Your task to perform on an android device: Add amazon basics triple a to the cart on ebay.com, then select checkout. Image 0: 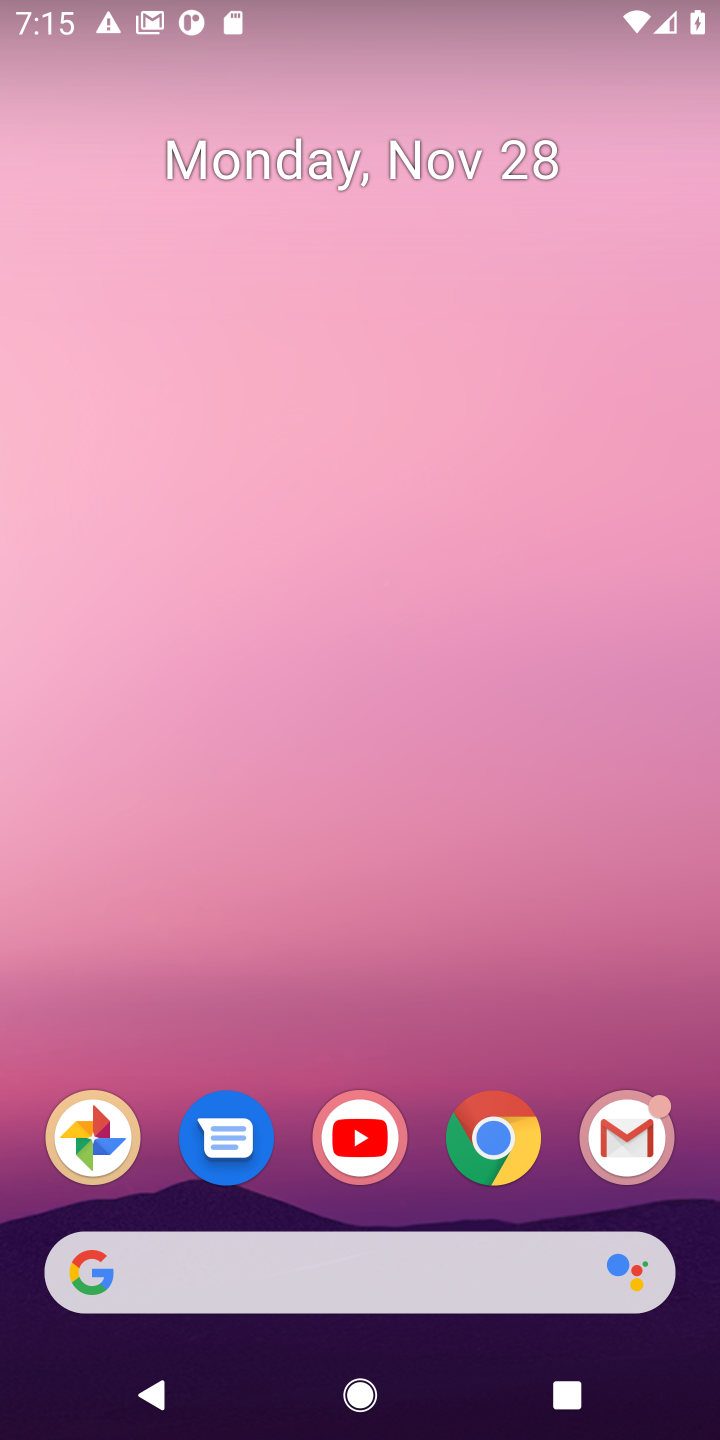
Step 0: click (490, 1141)
Your task to perform on an android device: Add amazon basics triple a to the cart on ebay.com, then select checkout. Image 1: 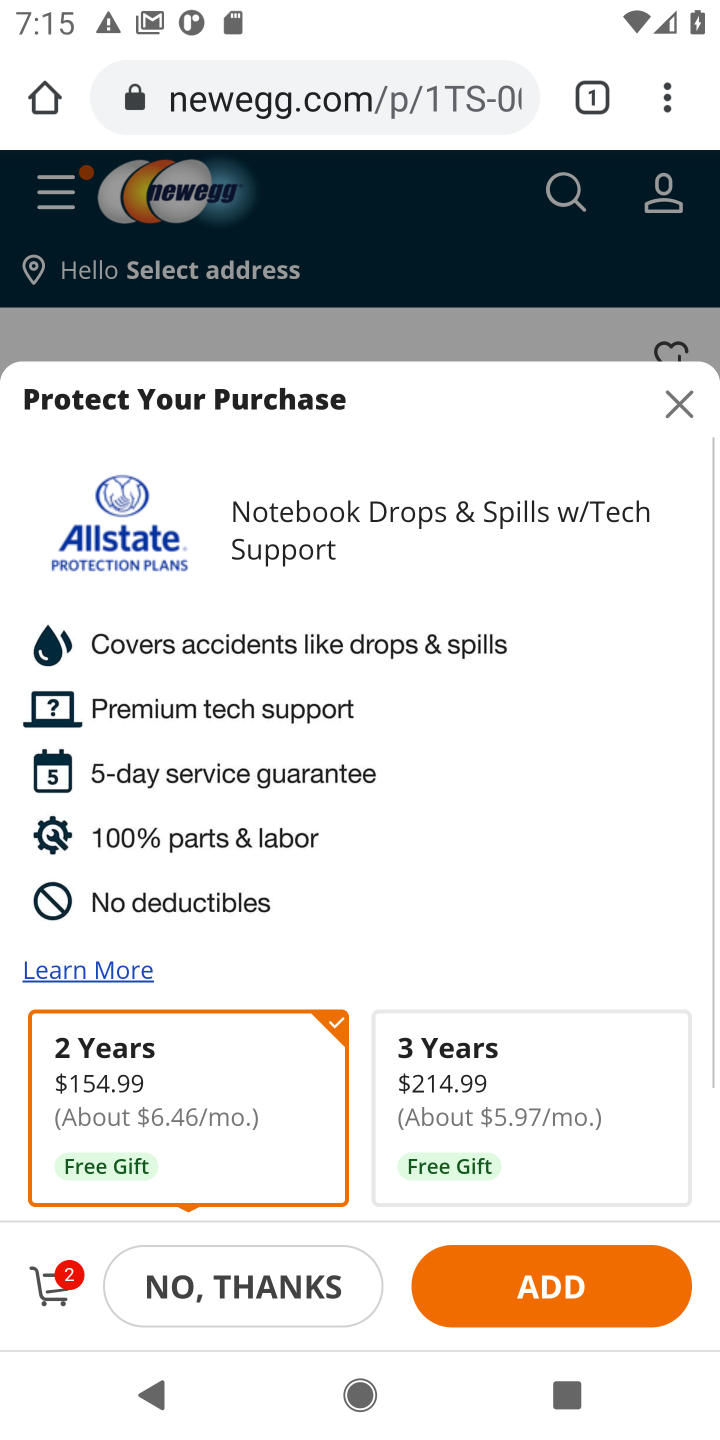
Step 1: click (318, 110)
Your task to perform on an android device: Add amazon basics triple a to the cart on ebay.com, then select checkout. Image 2: 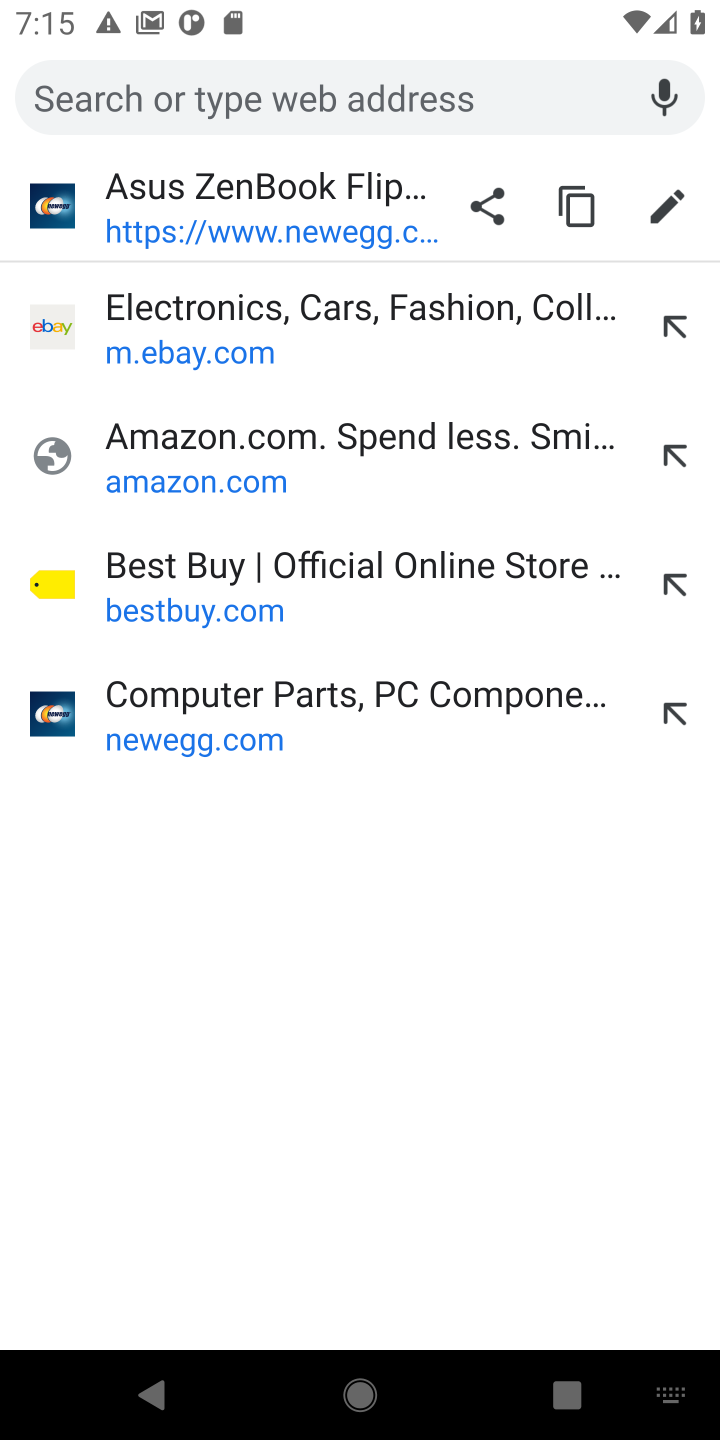
Step 2: click (198, 360)
Your task to perform on an android device: Add amazon basics triple a to the cart on ebay.com, then select checkout. Image 3: 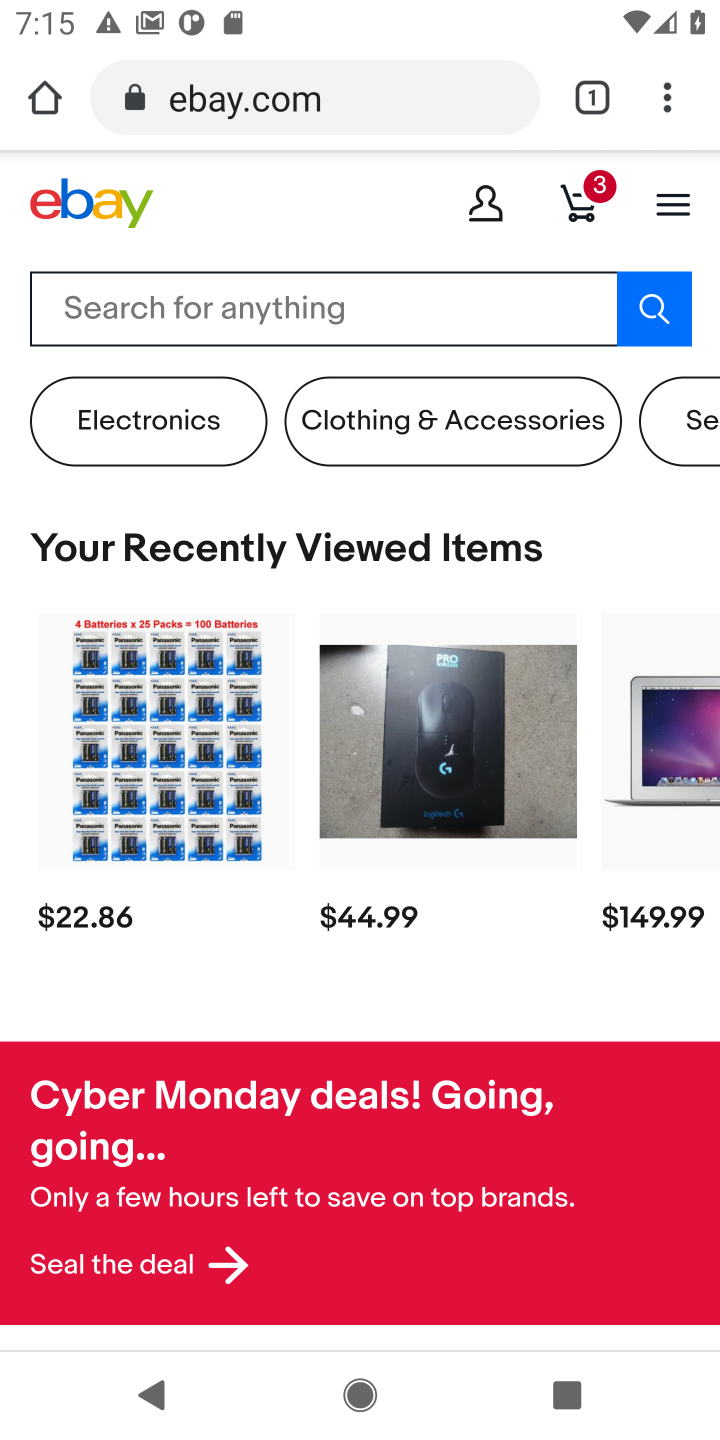
Step 3: click (117, 309)
Your task to perform on an android device: Add amazon basics triple a to the cart on ebay.com, then select checkout. Image 4: 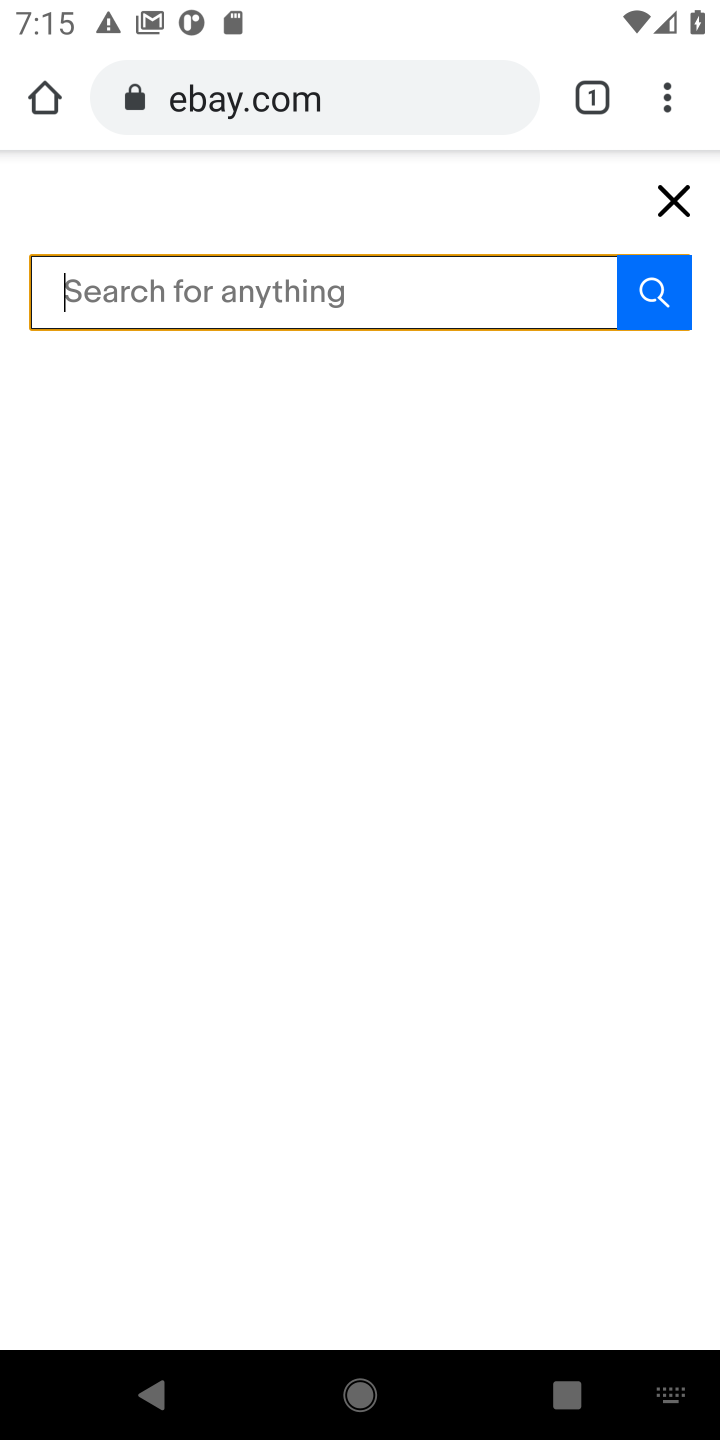
Step 4: type "amazon basics triple a"
Your task to perform on an android device: Add amazon basics triple a to the cart on ebay.com, then select checkout. Image 5: 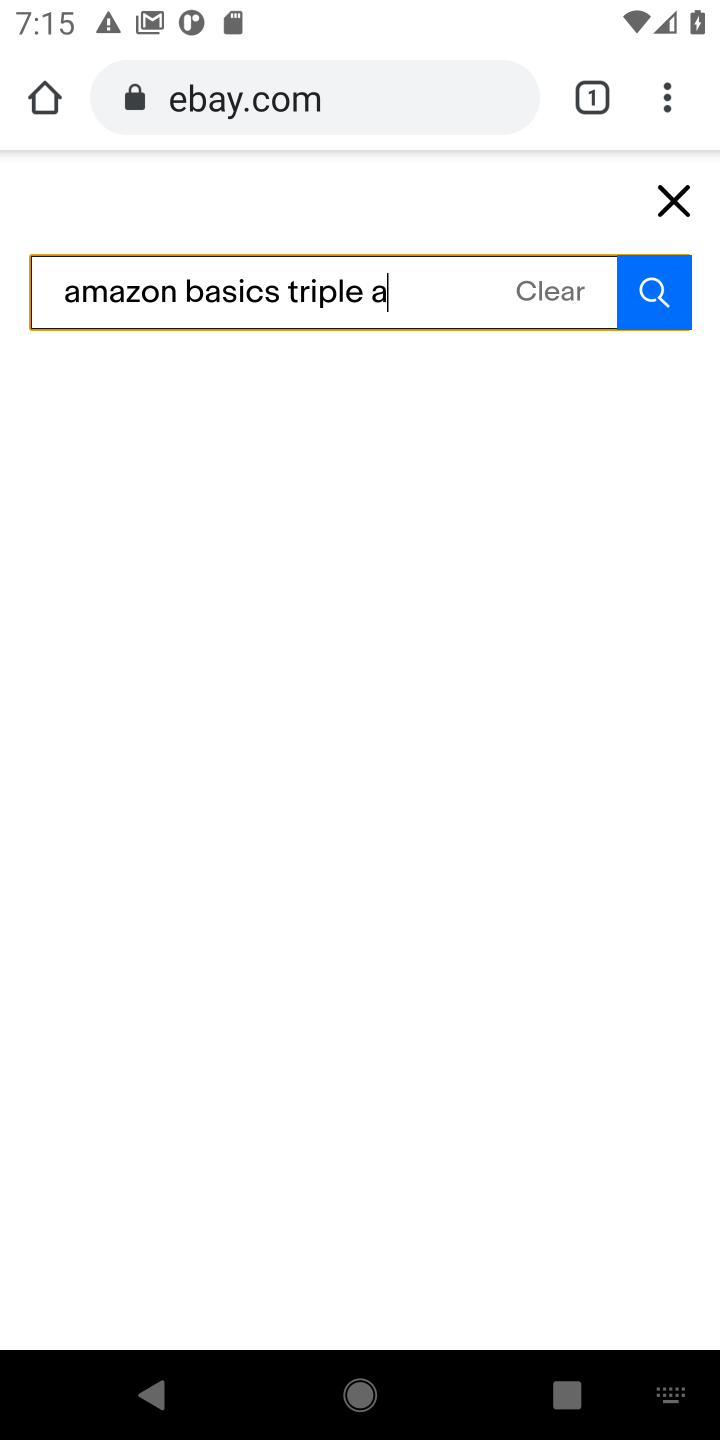
Step 5: click (660, 287)
Your task to perform on an android device: Add amazon basics triple a to the cart on ebay.com, then select checkout. Image 6: 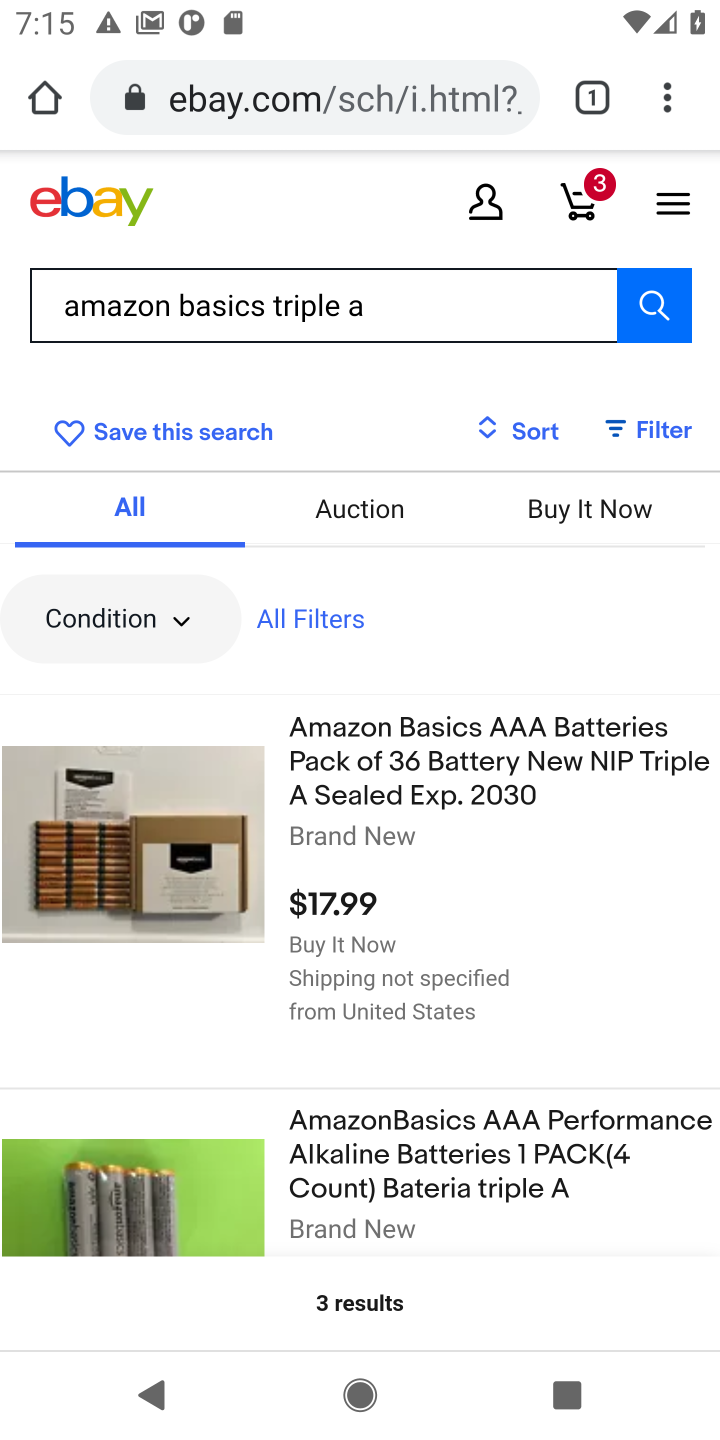
Step 6: click (318, 781)
Your task to perform on an android device: Add amazon basics triple a to the cart on ebay.com, then select checkout. Image 7: 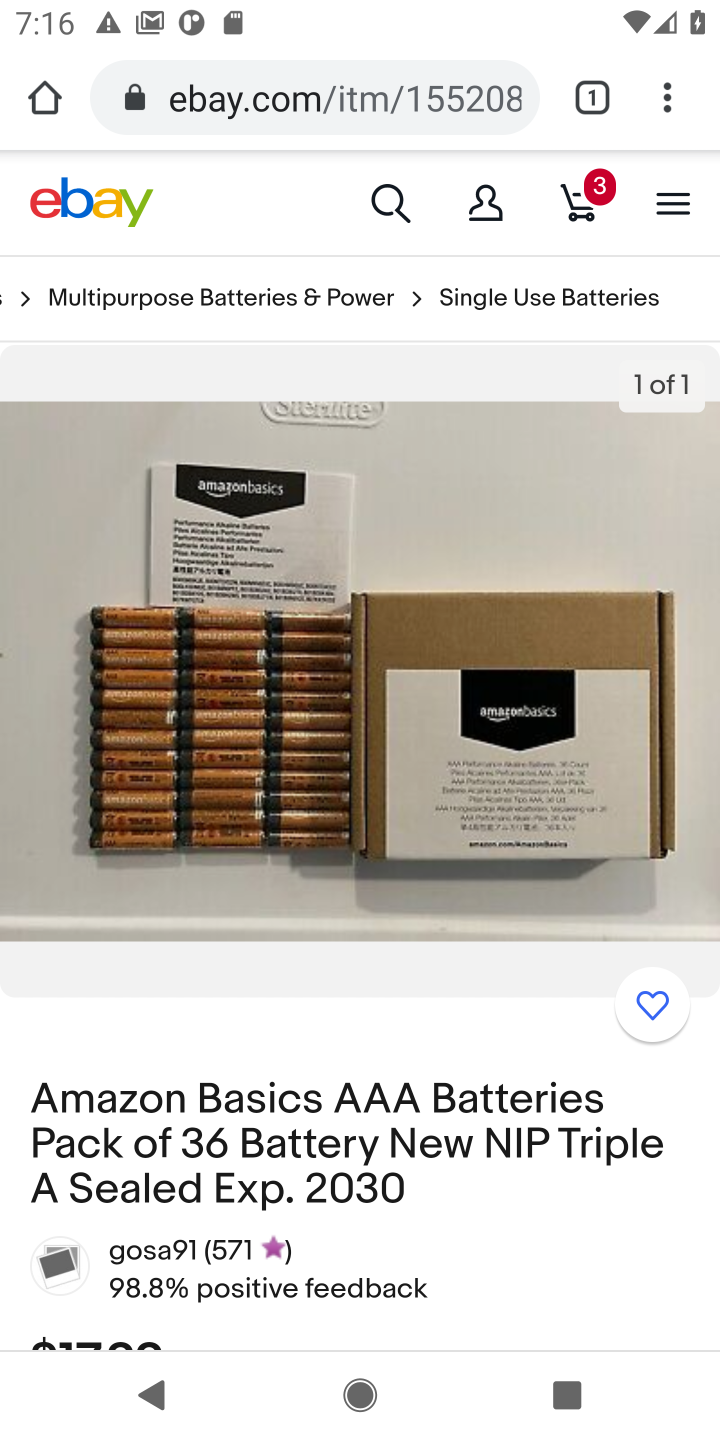
Step 7: drag from (318, 1050) to (307, 593)
Your task to perform on an android device: Add amazon basics triple a to the cart on ebay.com, then select checkout. Image 8: 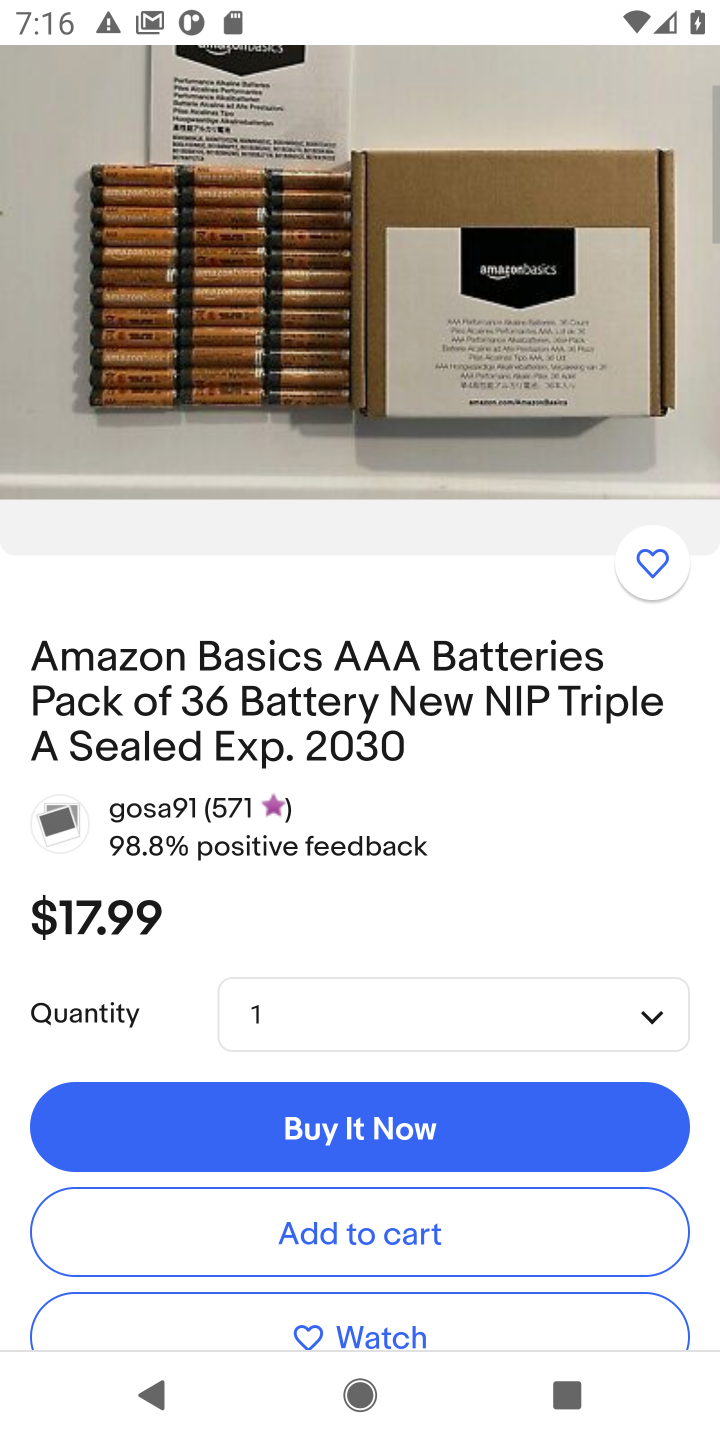
Step 8: drag from (387, 1024) to (387, 623)
Your task to perform on an android device: Add amazon basics triple a to the cart on ebay.com, then select checkout. Image 9: 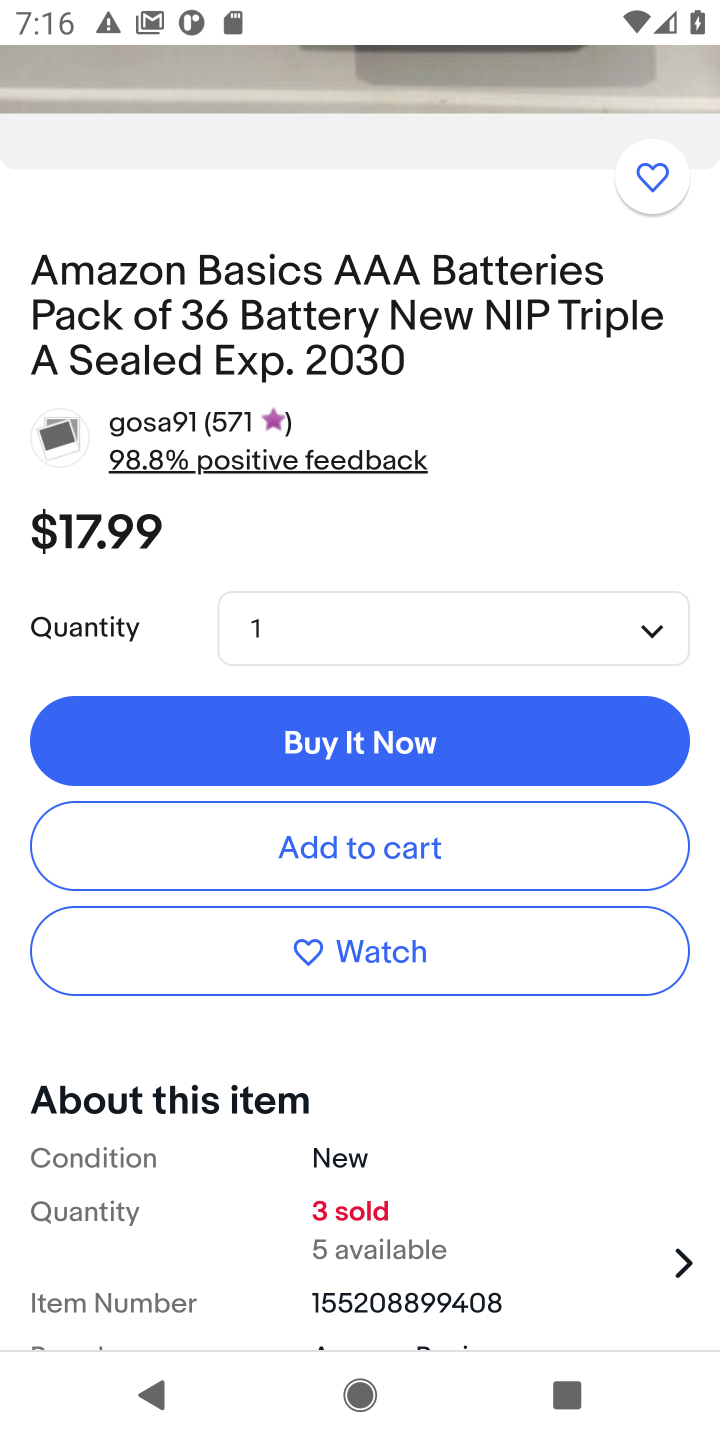
Step 9: click (333, 847)
Your task to perform on an android device: Add amazon basics triple a to the cart on ebay.com, then select checkout. Image 10: 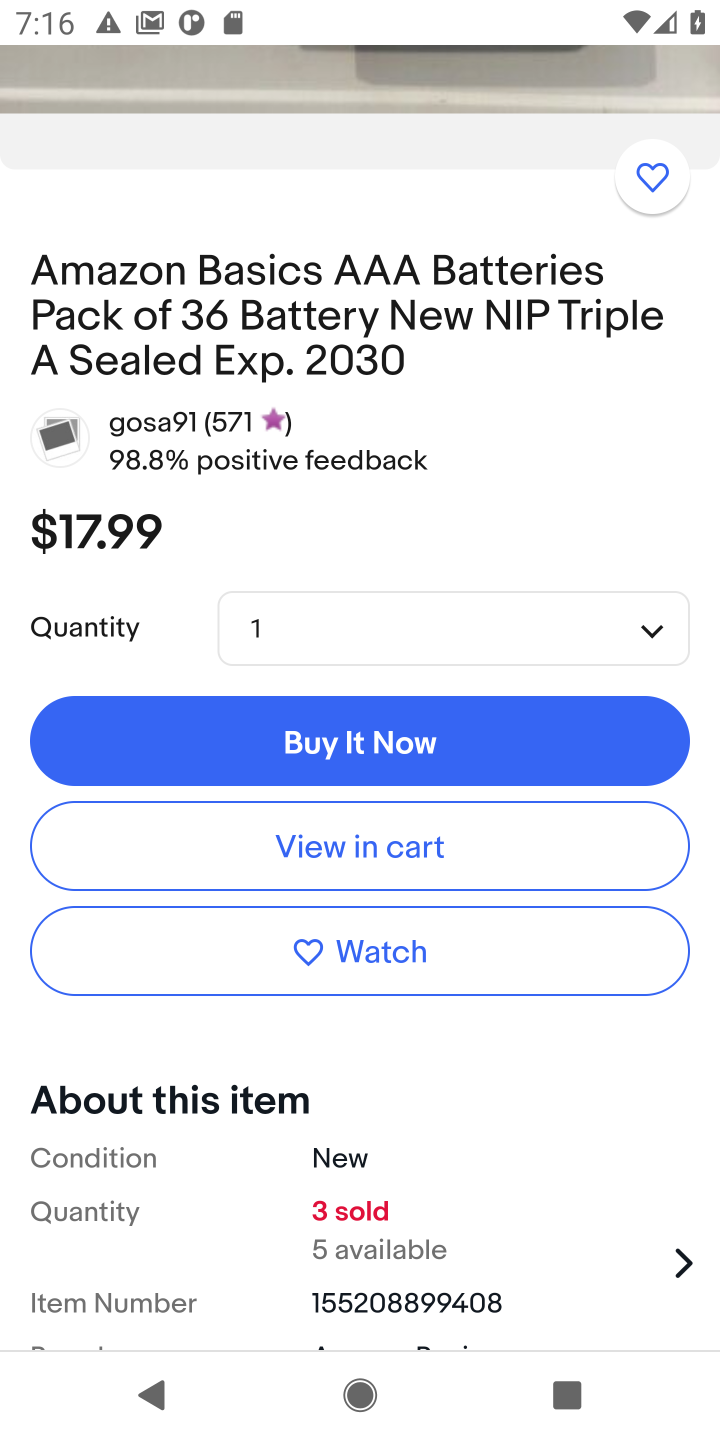
Step 10: click (333, 847)
Your task to perform on an android device: Add amazon basics triple a to the cart on ebay.com, then select checkout. Image 11: 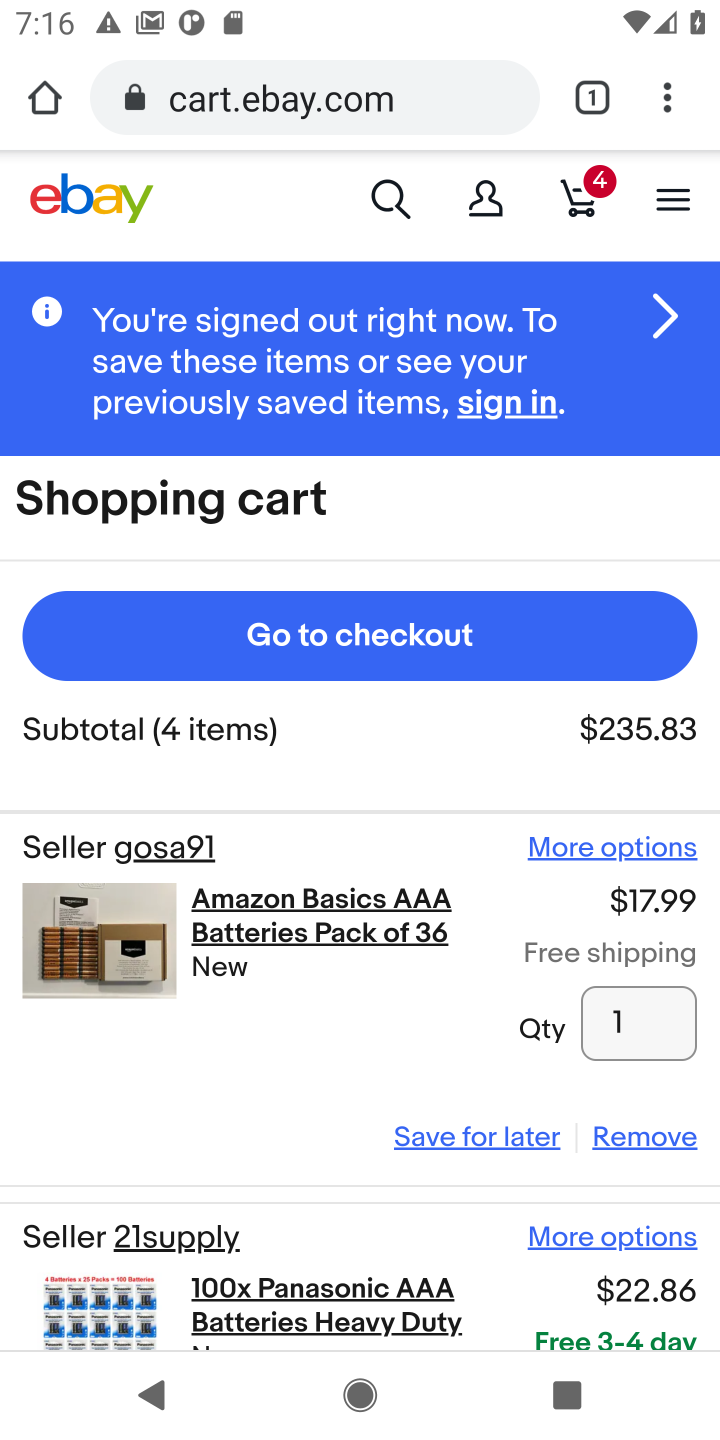
Step 11: click (383, 632)
Your task to perform on an android device: Add amazon basics triple a to the cart on ebay.com, then select checkout. Image 12: 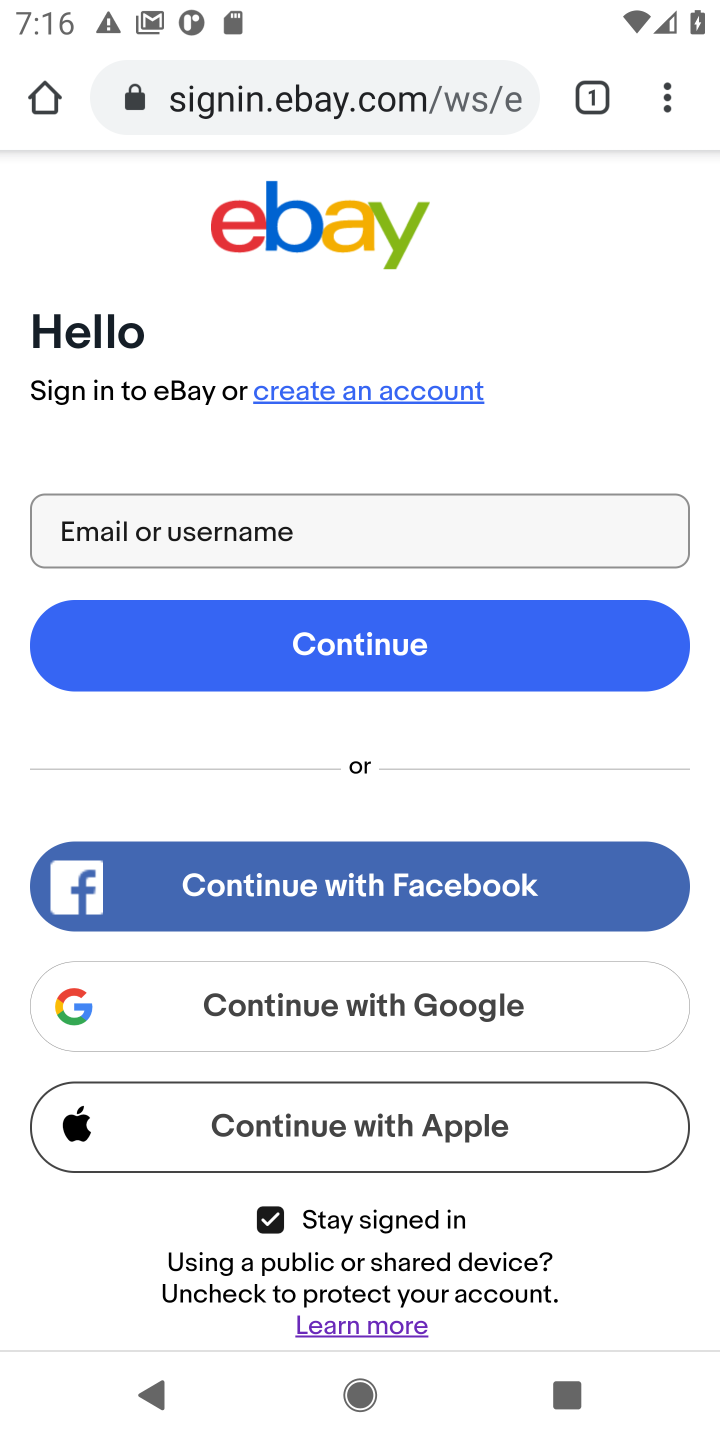
Step 12: task complete